Your task to perform on an android device: Go to Maps Image 0: 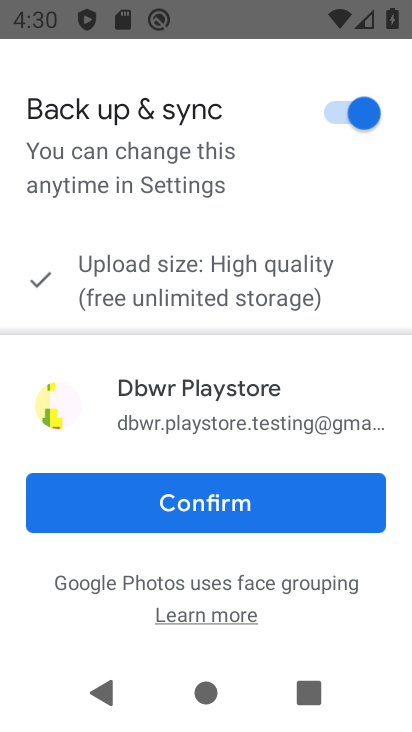
Step 0: press home button
Your task to perform on an android device: Go to Maps Image 1: 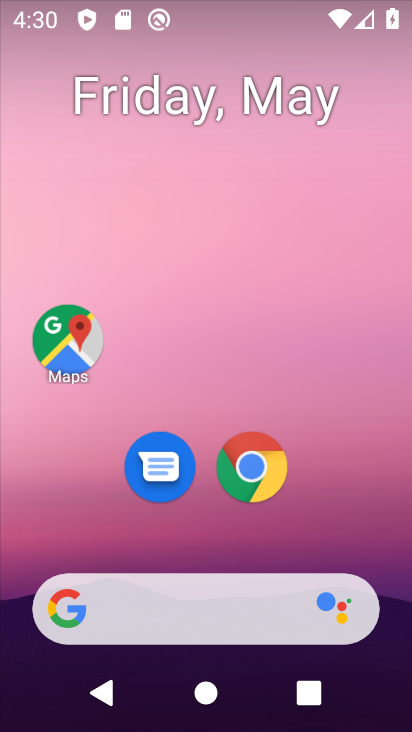
Step 1: click (64, 341)
Your task to perform on an android device: Go to Maps Image 2: 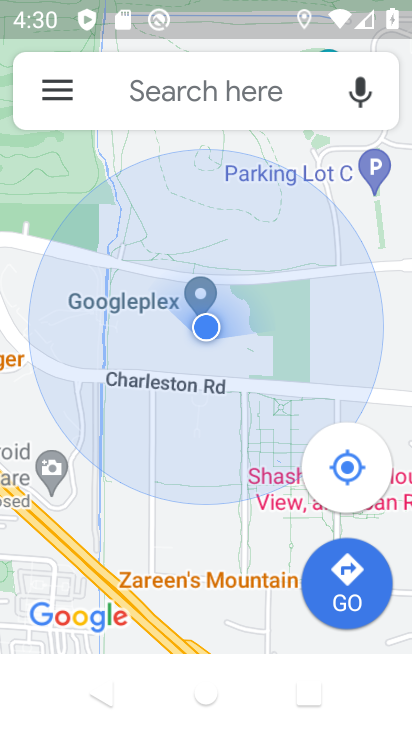
Step 2: task complete